Your task to perform on an android device: Clear all items from cart on costco.com. Image 0: 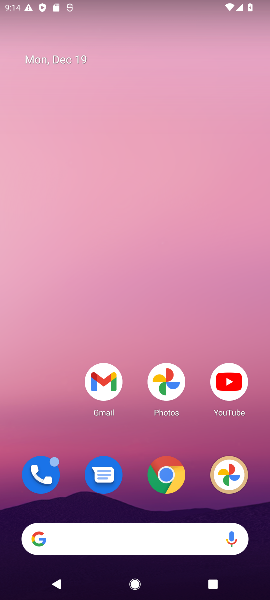
Step 0: click (172, 476)
Your task to perform on an android device: Clear all items from cart on costco.com. Image 1: 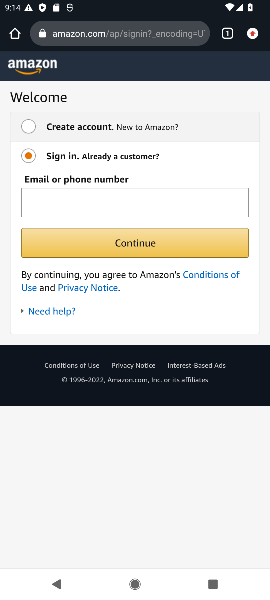
Step 1: click (111, 36)
Your task to perform on an android device: Clear all items from cart on costco.com. Image 2: 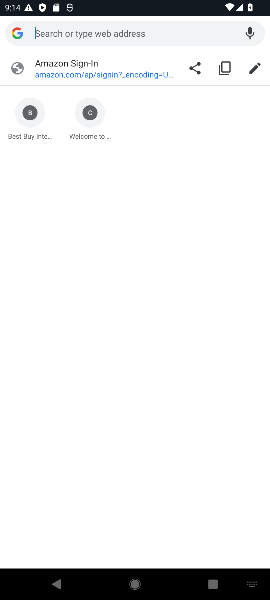
Step 2: type "costco"
Your task to perform on an android device: Clear all items from cart on costco.com. Image 3: 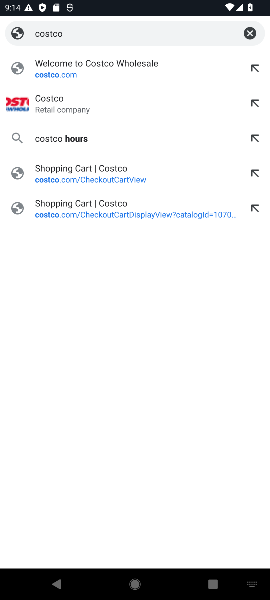
Step 3: click (82, 73)
Your task to perform on an android device: Clear all items from cart on costco.com. Image 4: 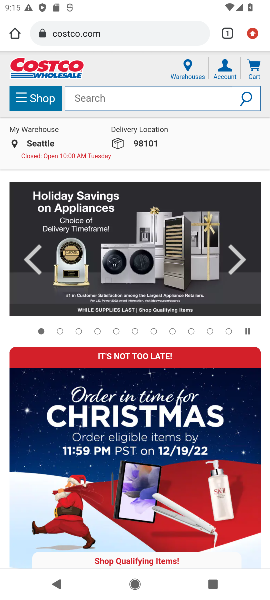
Step 4: click (249, 67)
Your task to perform on an android device: Clear all items from cart on costco.com. Image 5: 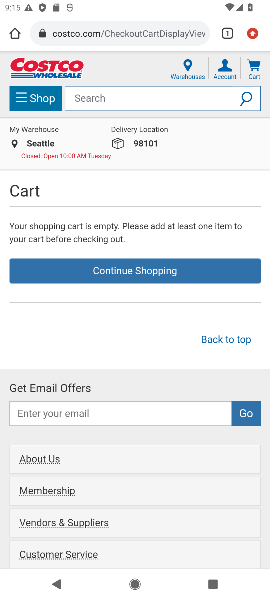
Step 5: task complete